Your task to perform on an android device: toggle notifications settings in the gmail app Image 0: 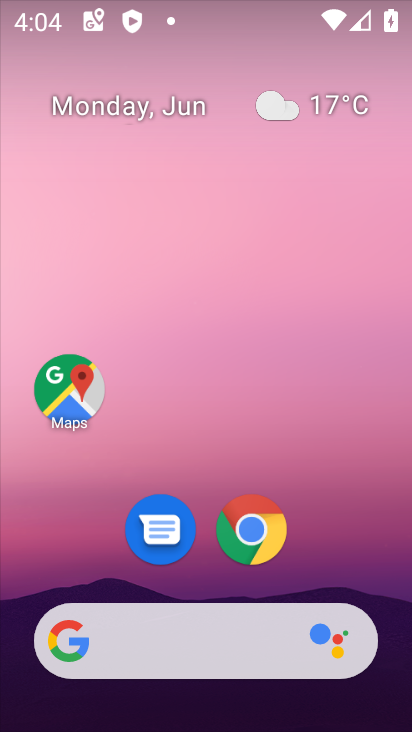
Step 0: drag from (334, 556) to (244, 18)
Your task to perform on an android device: toggle notifications settings in the gmail app Image 1: 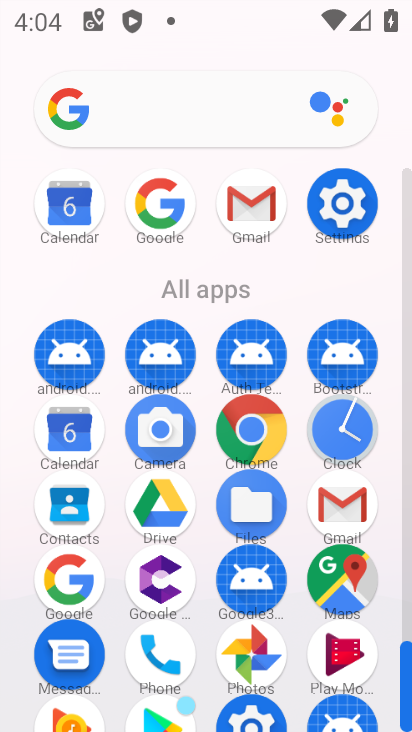
Step 1: click (251, 202)
Your task to perform on an android device: toggle notifications settings in the gmail app Image 2: 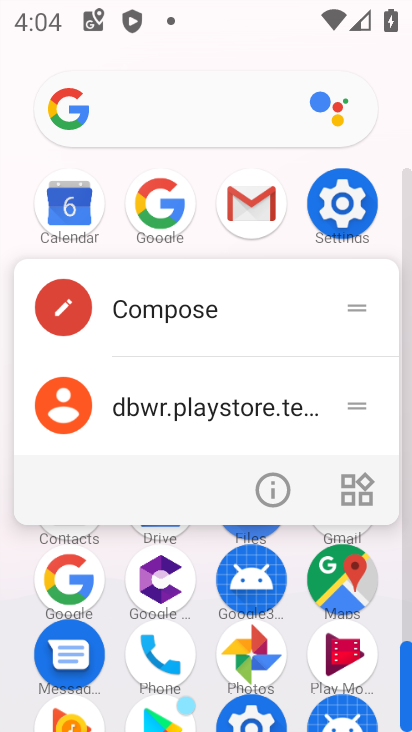
Step 2: click (251, 202)
Your task to perform on an android device: toggle notifications settings in the gmail app Image 3: 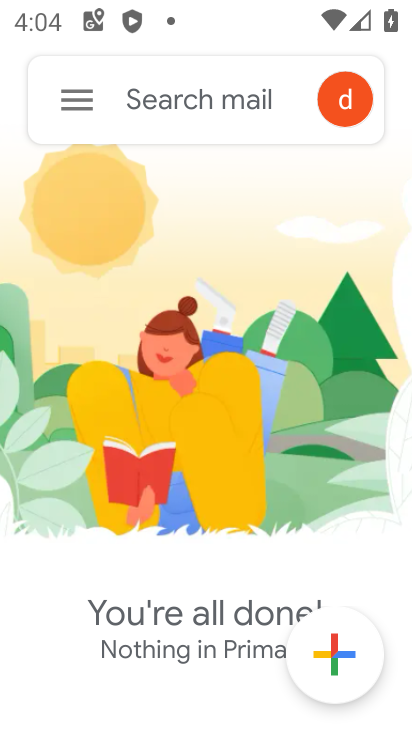
Step 3: click (79, 98)
Your task to perform on an android device: toggle notifications settings in the gmail app Image 4: 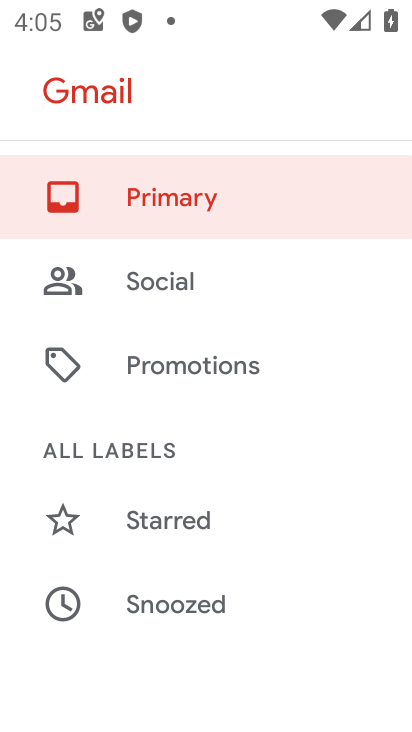
Step 4: drag from (133, 563) to (249, 207)
Your task to perform on an android device: toggle notifications settings in the gmail app Image 5: 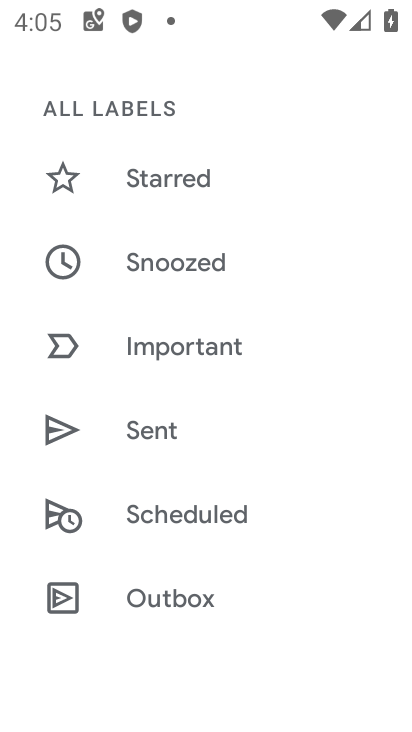
Step 5: drag from (169, 626) to (313, 77)
Your task to perform on an android device: toggle notifications settings in the gmail app Image 6: 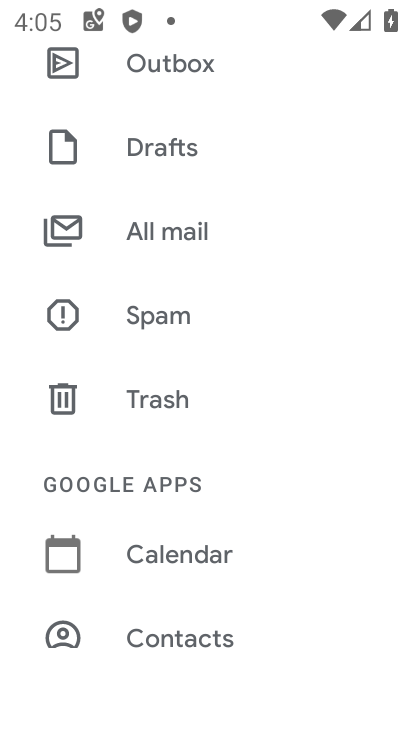
Step 6: drag from (205, 532) to (286, 235)
Your task to perform on an android device: toggle notifications settings in the gmail app Image 7: 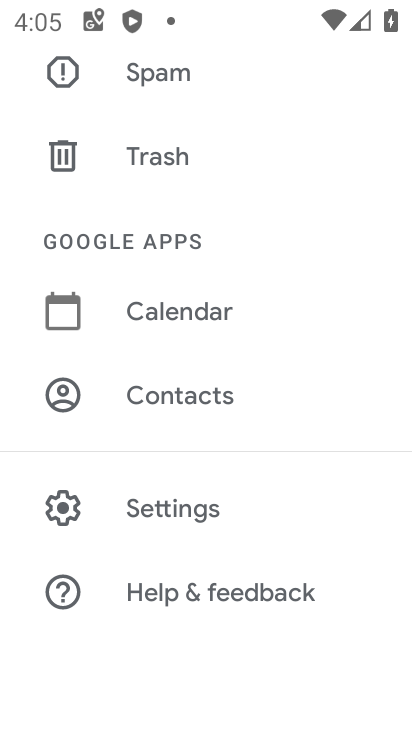
Step 7: click (192, 517)
Your task to perform on an android device: toggle notifications settings in the gmail app Image 8: 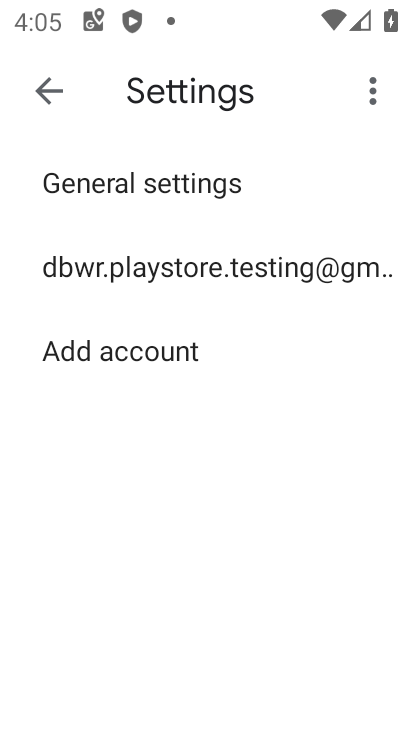
Step 8: click (155, 267)
Your task to perform on an android device: toggle notifications settings in the gmail app Image 9: 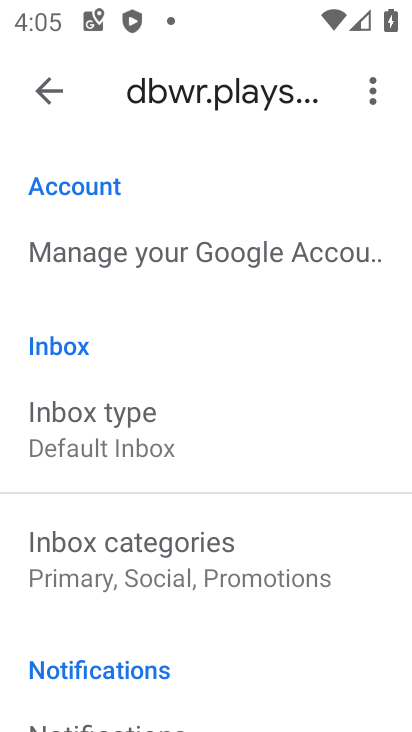
Step 9: drag from (194, 465) to (259, 240)
Your task to perform on an android device: toggle notifications settings in the gmail app Image 10: 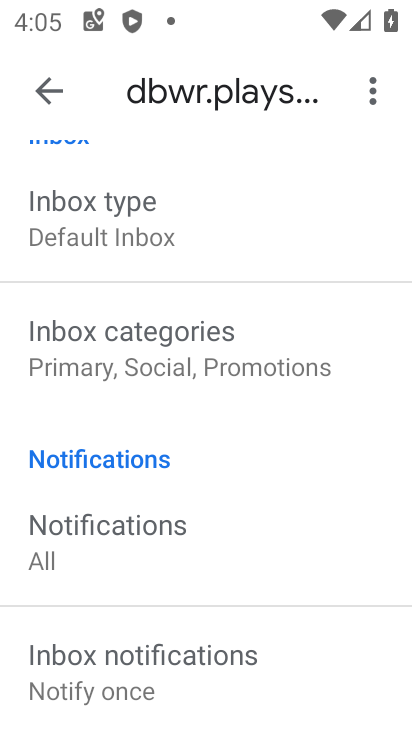
Step 10: drag from (211, 557) to (300, 275)
Your task to perform on an android device: toggle notifications settings in the gmail app Image 11: 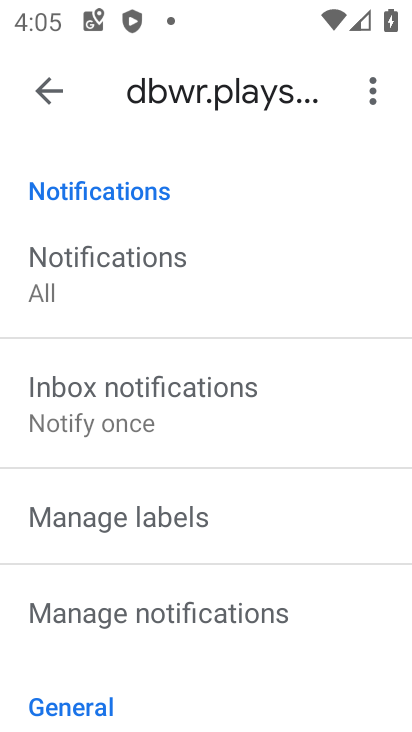
Step 11: click (183, 607)
Your task to perform on an android device: toggle notifications settings in the gmail app Image 12: 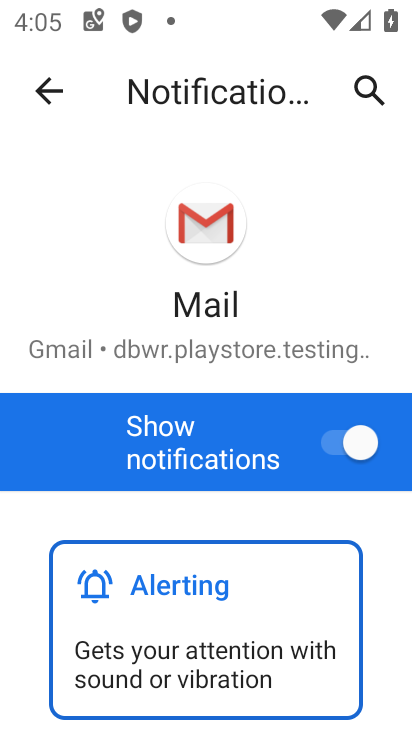
Step 12: click (339, 438)
Your task to perform on an android device: toggle notifications settings in the gmail app Image 13: 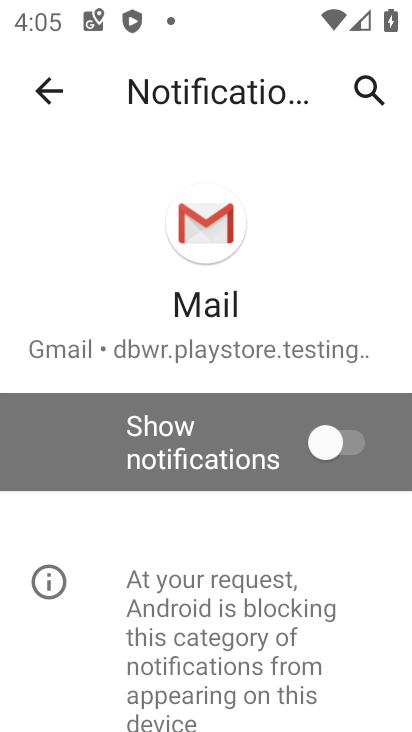
Step 13: task complete